Your task to perform on an android device: Search for vegetarian restaurants on Maps Image 0: 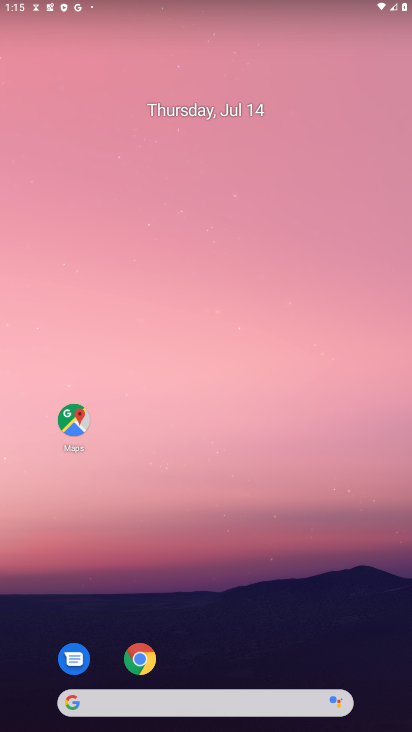
Step 0: drag from (24, 671) to (335, 116)
Your task to perform on an android device: Search for vegetarian restaurants on Maps Image 1: 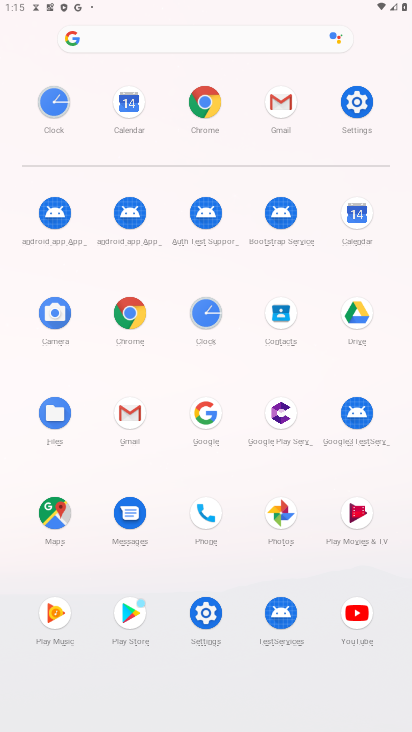
Step 1: click (58, 519)
Your task to perform on an android device: Search for vegetarian restaurants on Maps Image 2: 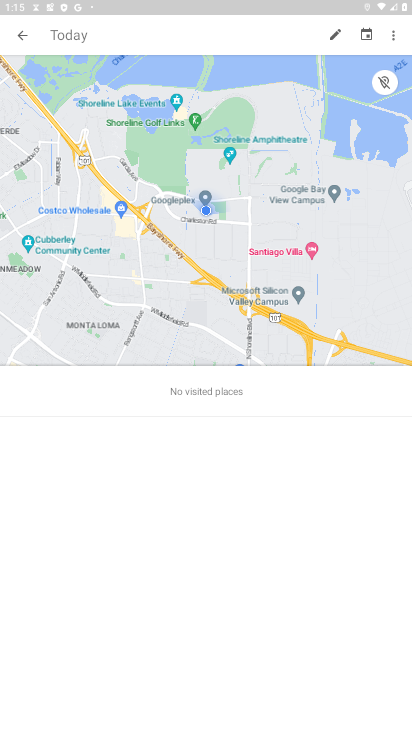
Step 2: click (107, 30)
Your task to perform on an android device: Search for vegetarian restaurants on Maps Image 3: 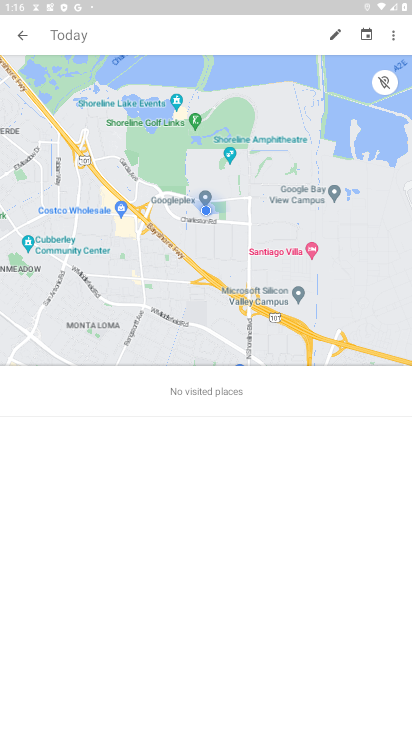
Step 3: click (27, 41)
Your task to perform on an android device: Search for vegetarian restaurants on Maps Image 4: 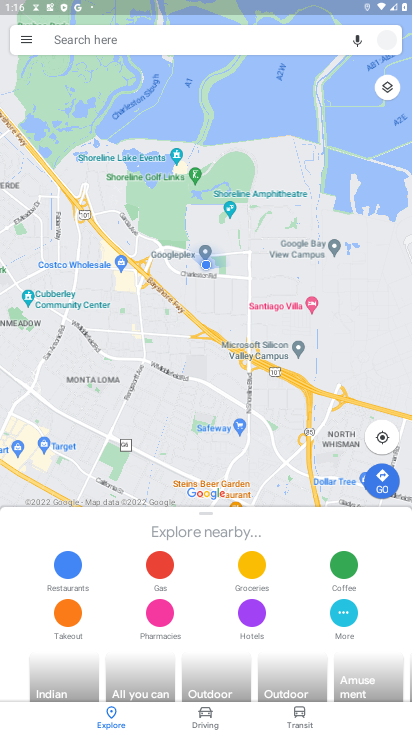
Step 4: click (73, 41)
Your task to perform on an android device: Search for vegetarian restaurants on Maps Image 5: 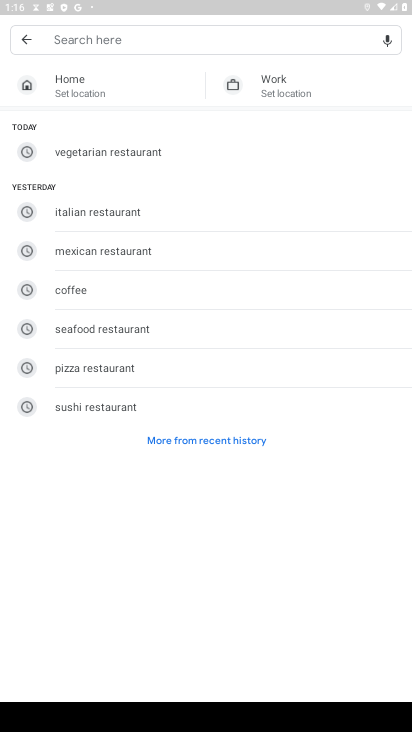
Step 5: click (135, 158)
Your task to perform on an android device: Search for vegetarian restaurants on Maps Image 6: 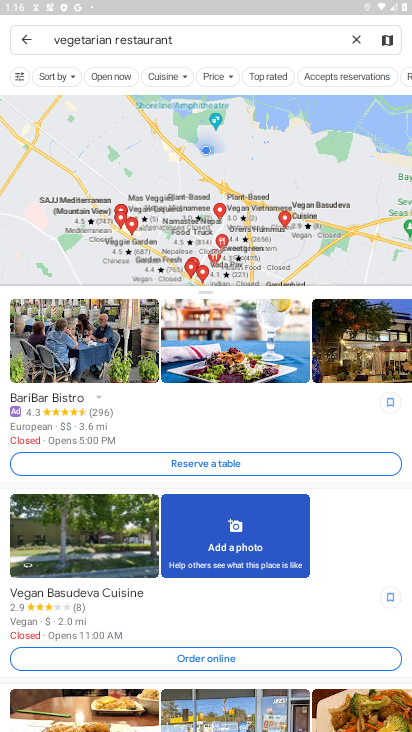
Step 6: task complete